Your task to perform on an android device: Search for pizza restaurants on Maps Image 0: 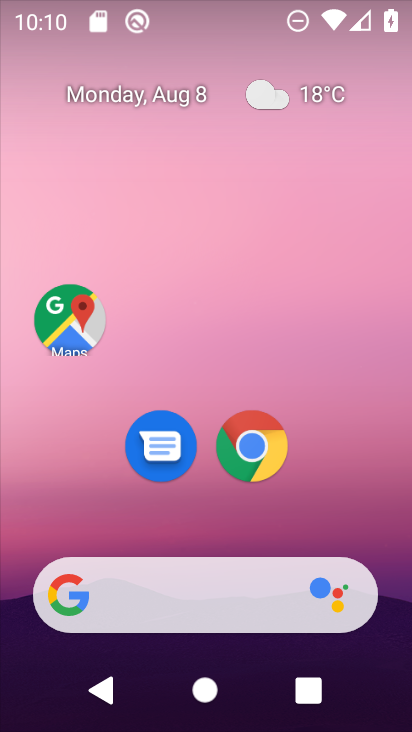
Step 0: click (67, 324)
Your task to perform on an android device: Search for pizza restaurants on Maps Image 1: 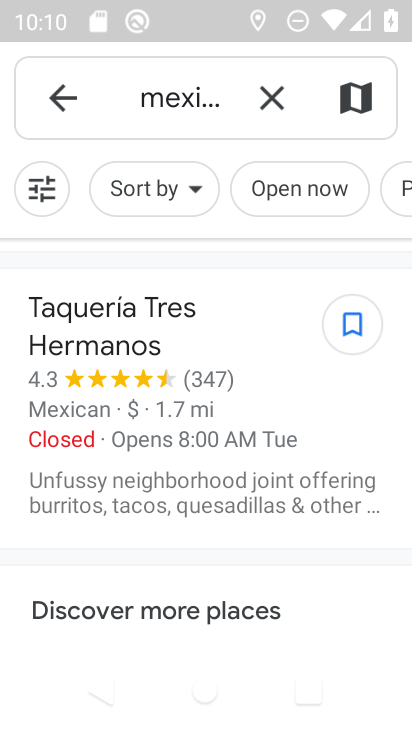
Step 1: click (266, 91)
Your task to perform on an android device: Search for pizza restaurants on Maps Image 2: 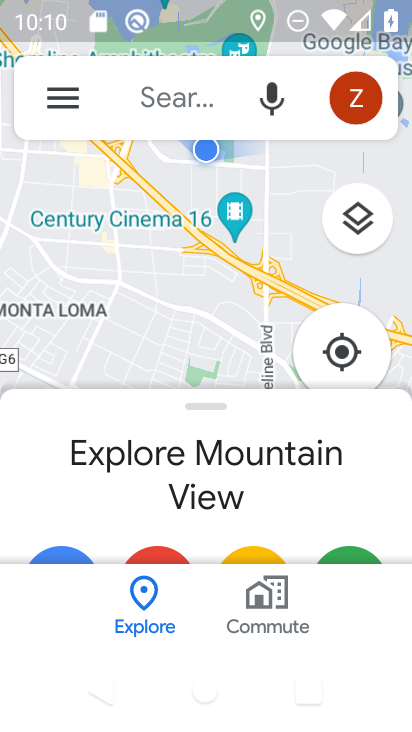
Step 2: click (149, 94)
Your task to perform on an android device: Search for pizza restaurants on Maps Image 3: 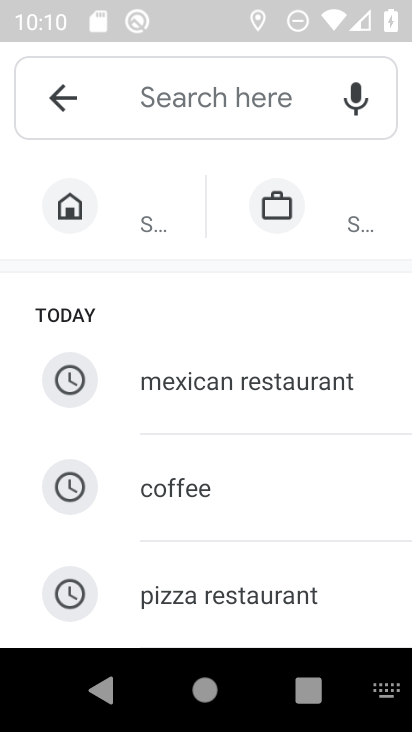
Step 3: type "pizza restaurants"
Your task to perform on an android device: Search for pizza restaurants on Maps Image 4: 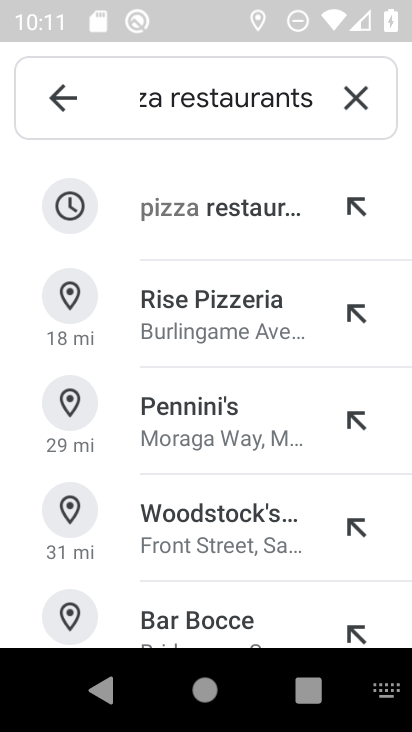
Step 4: click (218, 219)
Your task to perform on an android device: Search for pizza restaurants on Maps Image 5: 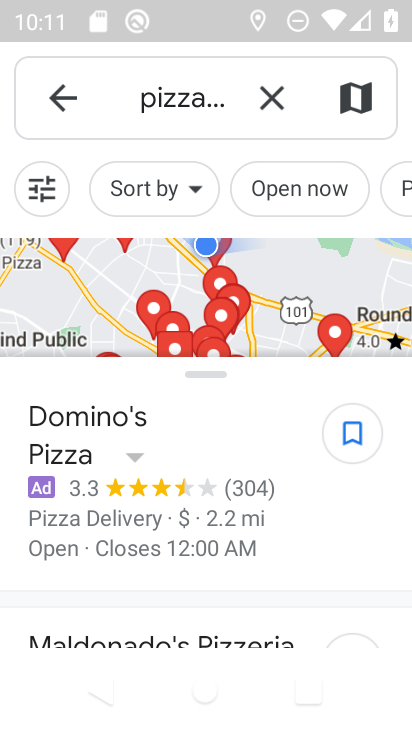
Step 5: task complete